Your task to perform on an android device: Go to ESPN.com Image 0: 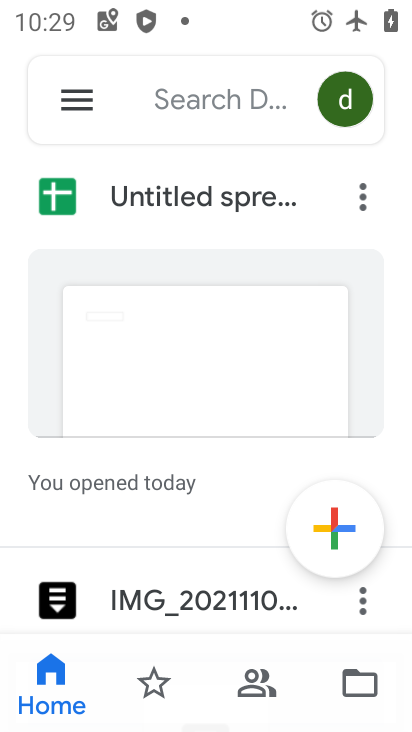
Step 0: press home button
Your task to perform on an android device: Go to ESPN.com Image 1: 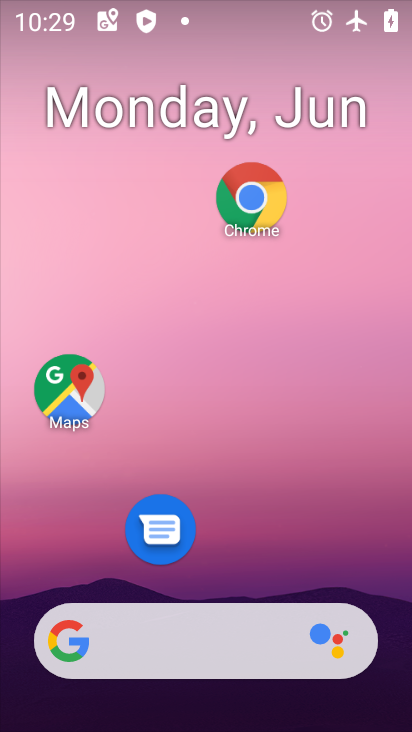
Step 1: click (275, 205)
Your task to perform on an android device: Go to ESPN.com Image 2: 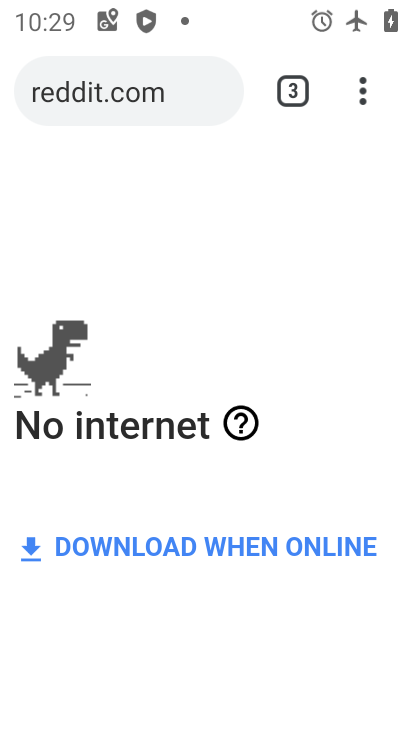
Step 2: click (286, 95)
Your task to perform on an android device: Go to ESPN.com Image 3: 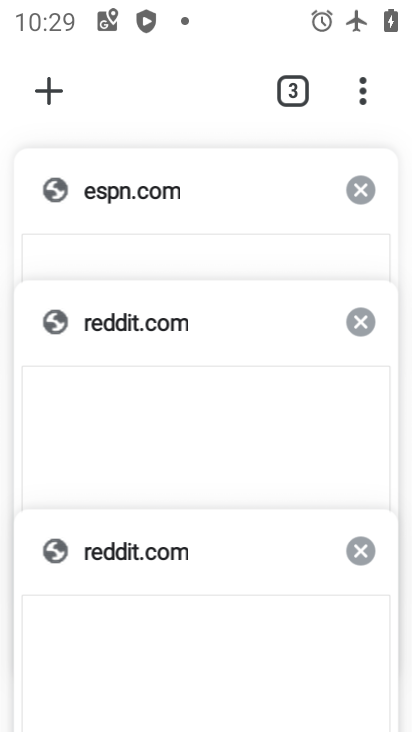
Step 3: click (43, 93)
Your task to perform on an android device: Go to ESPN.com Image 4: 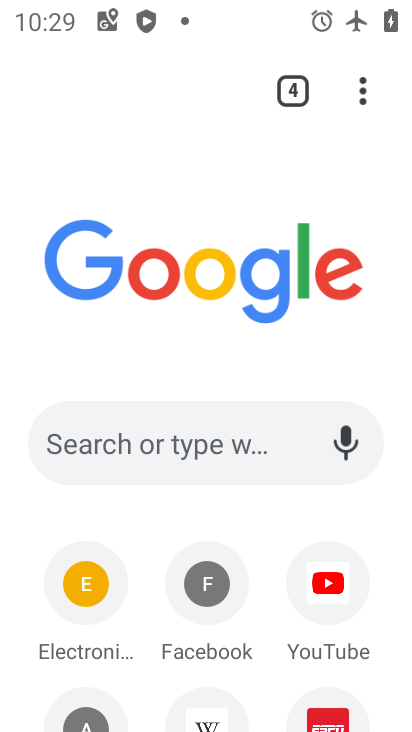
Step 4: click (160, 208)
Your task to perform on an android device: Go to ESPN.com Image 5: 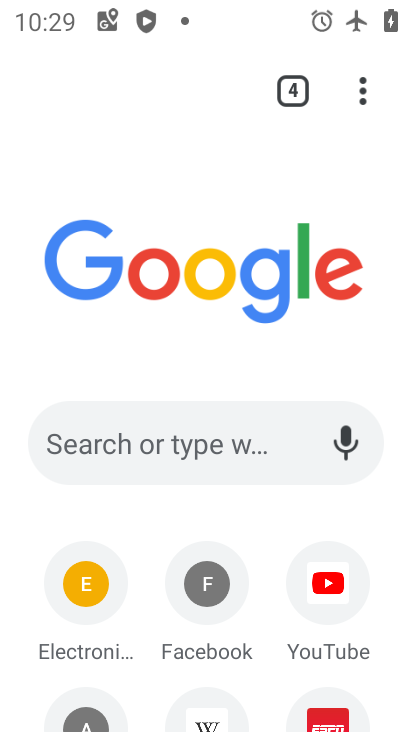
Step 5: task complete